Your task to perform on an android device: Open calendar and show me the third week of next month Image 0: 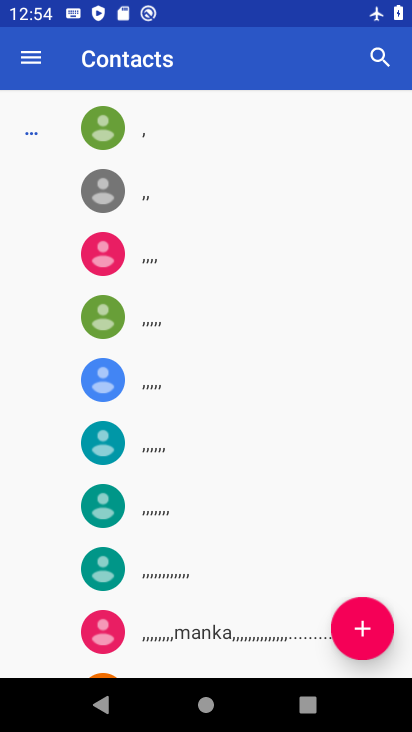
Step 0: press home button
Your task to perform on an android device: Open calendar and show me the third week of next month Image 1: 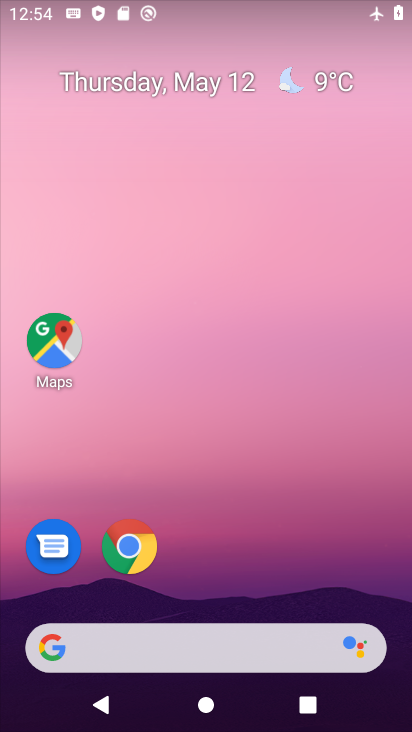
Step 1: drag from (210, 681) to (296, 324)
Your task to perform on an android device: Open calendar and show me the third week of next month Image 2: 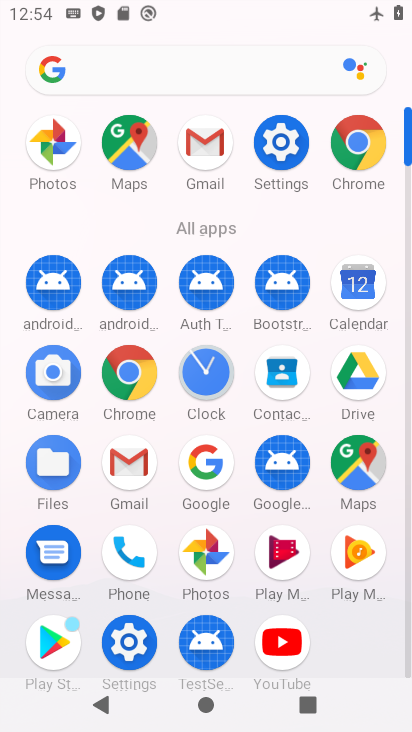
Step 2: click (339, 299)
Your task to perform on an android device: Open calendar and show me the third week of next month Image 3: 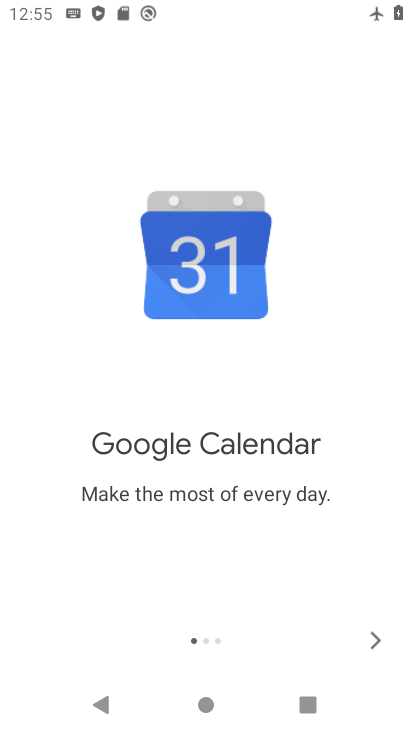
Step 3: click (374, 636)
Your task to perform on an android device: Open calendar and show me the third week of next month Image 4: 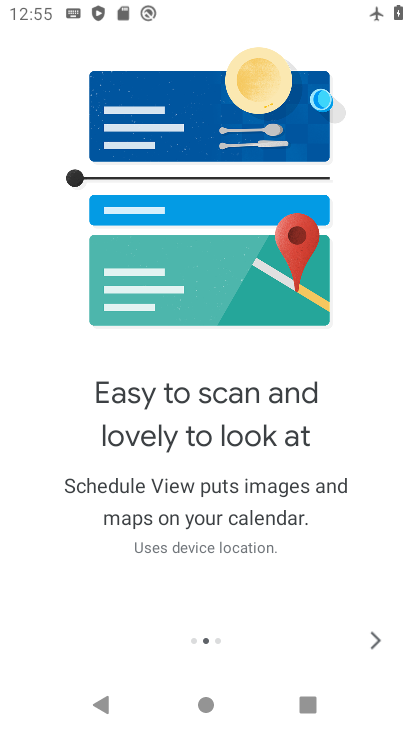
Step 4: click (373, 634)
Your task to perform on an android device: Open calendar and show me the third week of next month Image 5: 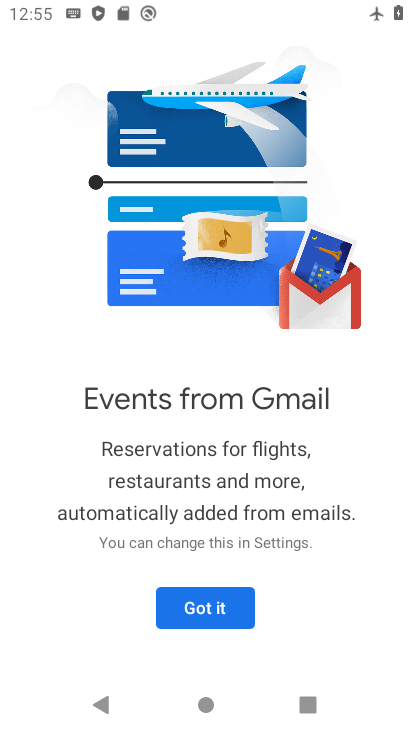
Step 5: click (186, 594)
Your task to perform on an android device: Open calendar and show me the third week of next month Image 6: 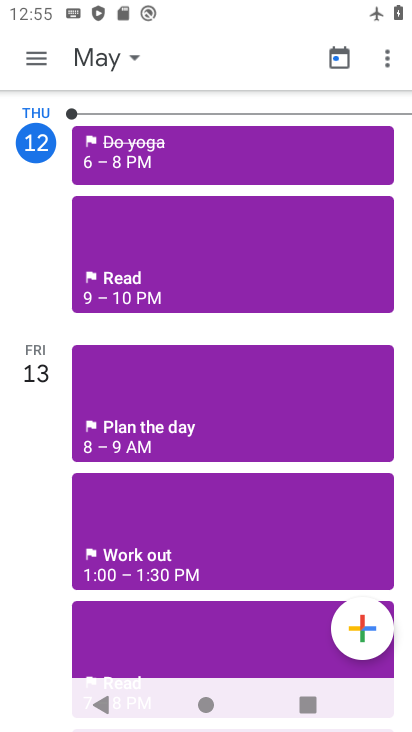
Step 6: click (44, 55)
Your task to perform on an android device: Open calendar and show me the third week of next month Image 7: 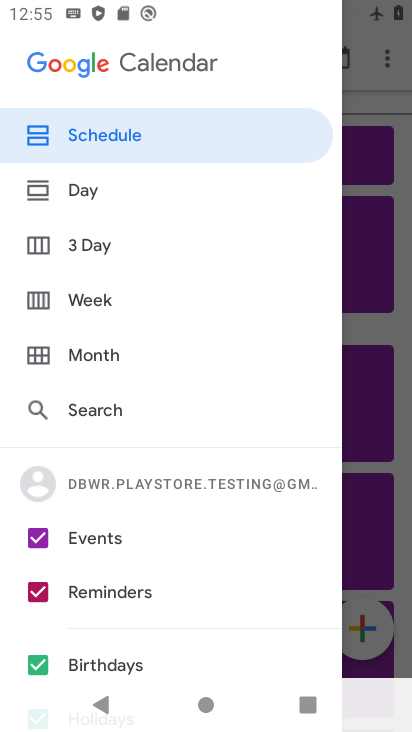
Step 7: click (83, 361)
Your task to perform on an android device: Open calendar and show me the third week of next month Image 8: 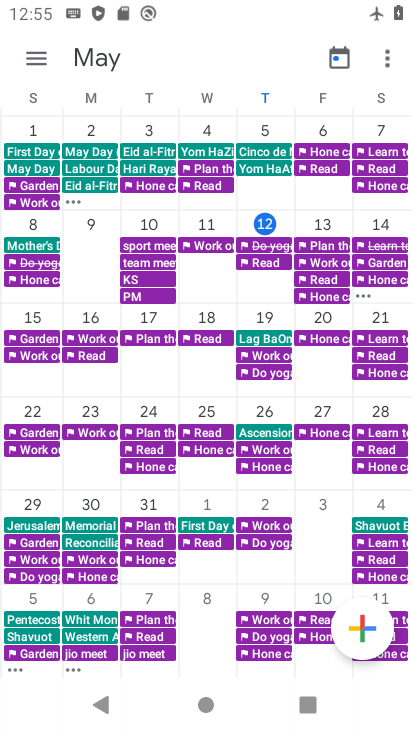
Step 8: drag from (368, 443) to (2, 404)
Your task to perform on an android device: Open calendar and show me the third week of next month Image 9: 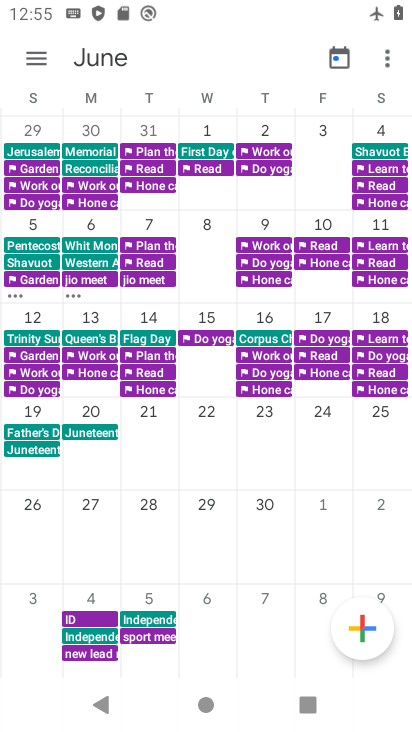
Step 9: click (89, 327)
Your task to perform on an android device: Open calendar and show me the third week of next month Image 10: 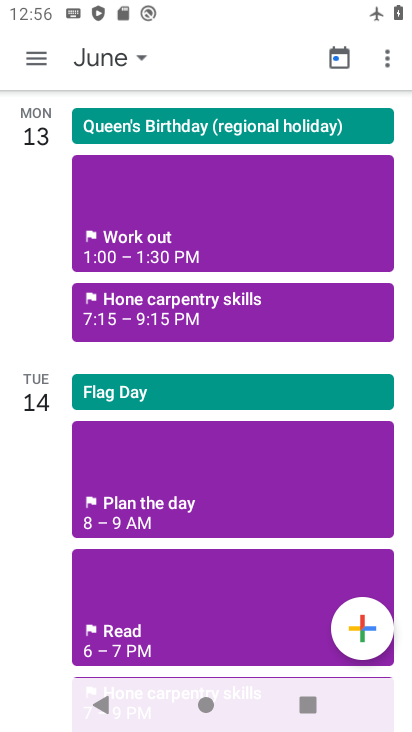
Step 10: task complete